Your task to perform on an android device: install app "Move to iOS" Image 0: 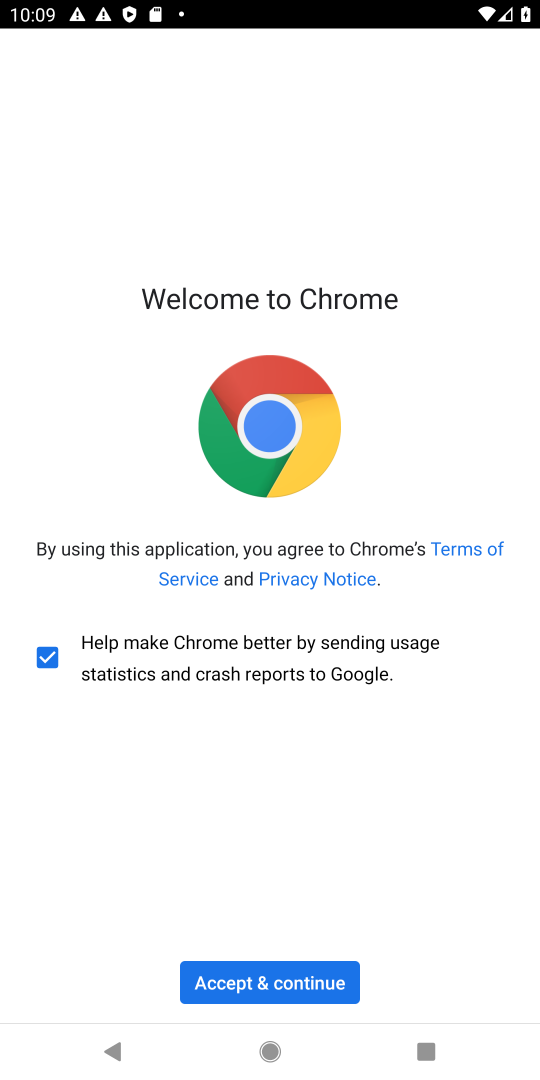
Step 0: click (255, 985)
Your task to perform on an android device: install app "Move to iOS" Image 1: 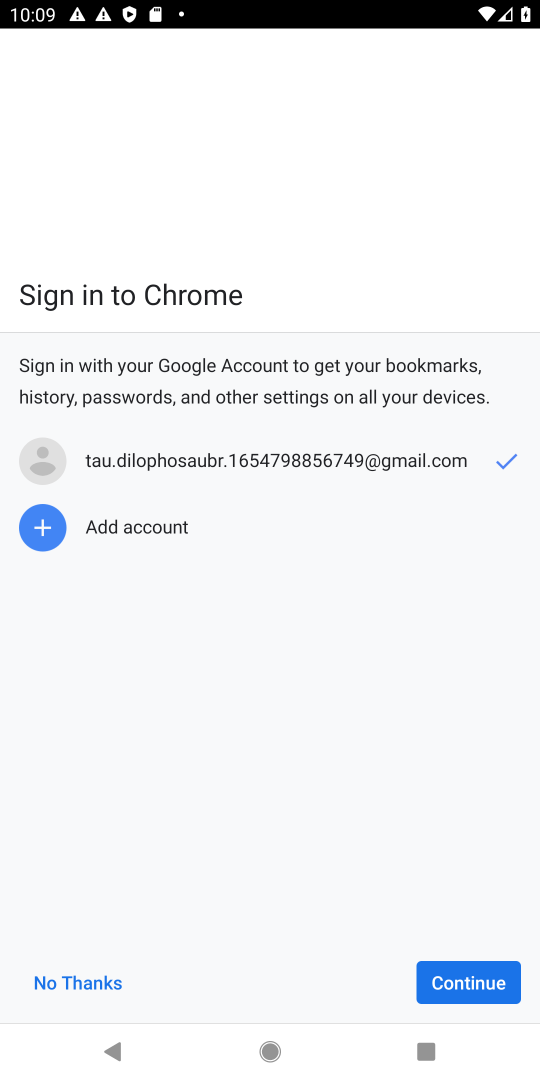
Step 1: click (81, 980)
Your task to perform on an android device: install app "Move to iOS" Image 2: 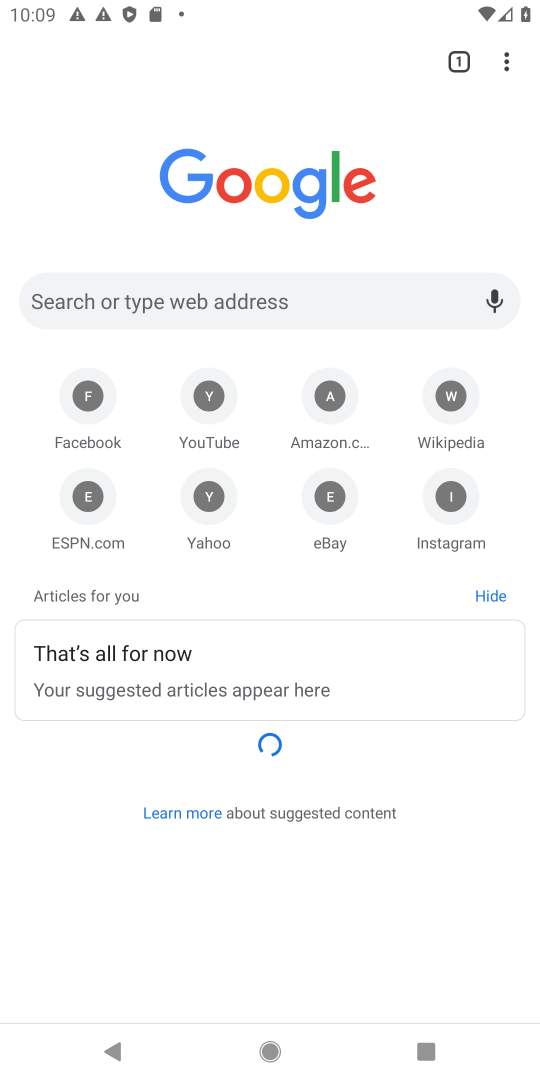
Step 2: press home button
Your task to perform on an android device: install app "Move to iOS" Image 3: 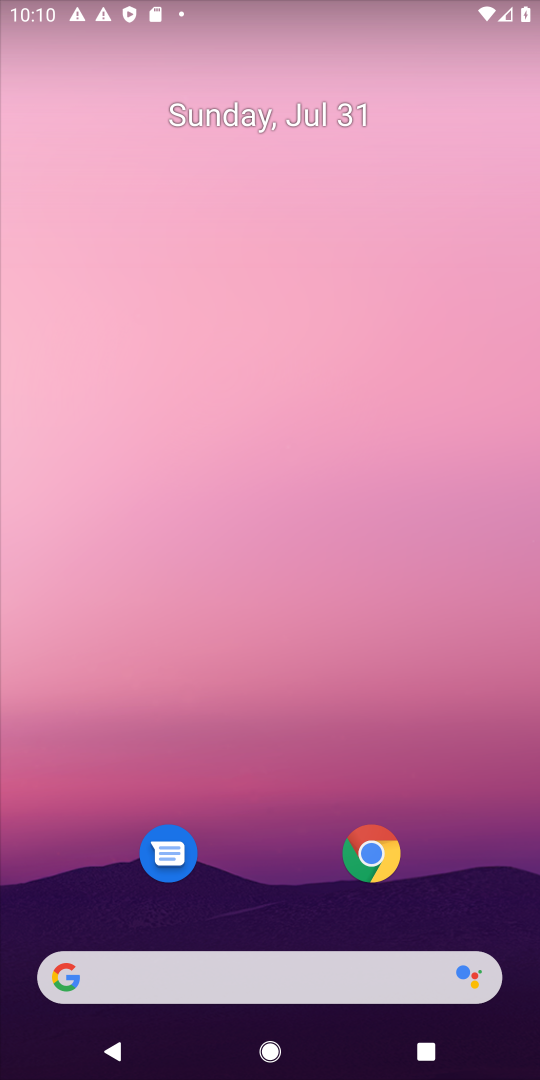
Step 3: drag from (299, 1028) to (251, 86)
Your task to perform on an android device: install app "Move to iOS" Image 4: 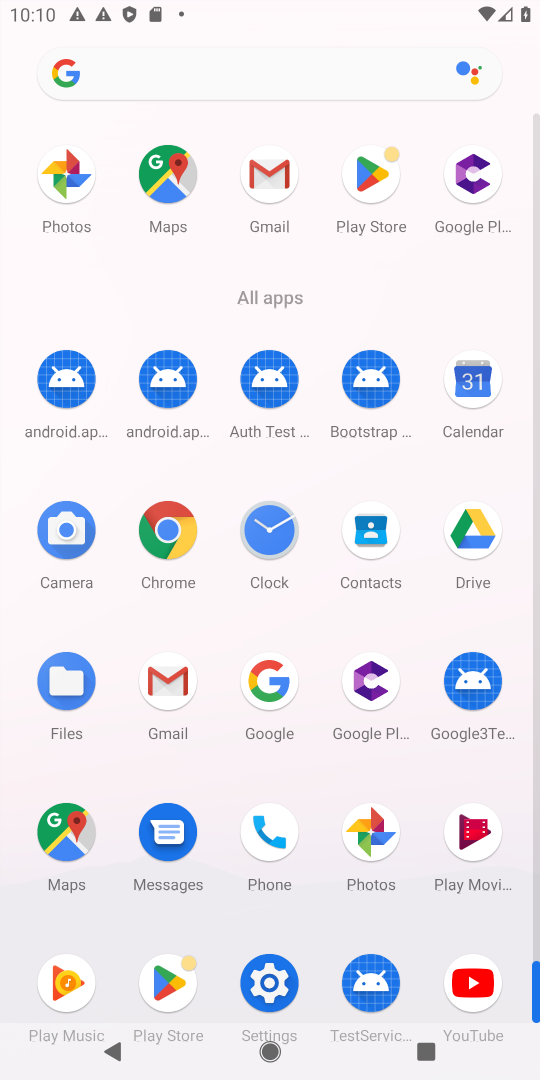
Step 4: click (167, 978)
Your task to perform on an android device: install app "Move to iOS" Image 5: 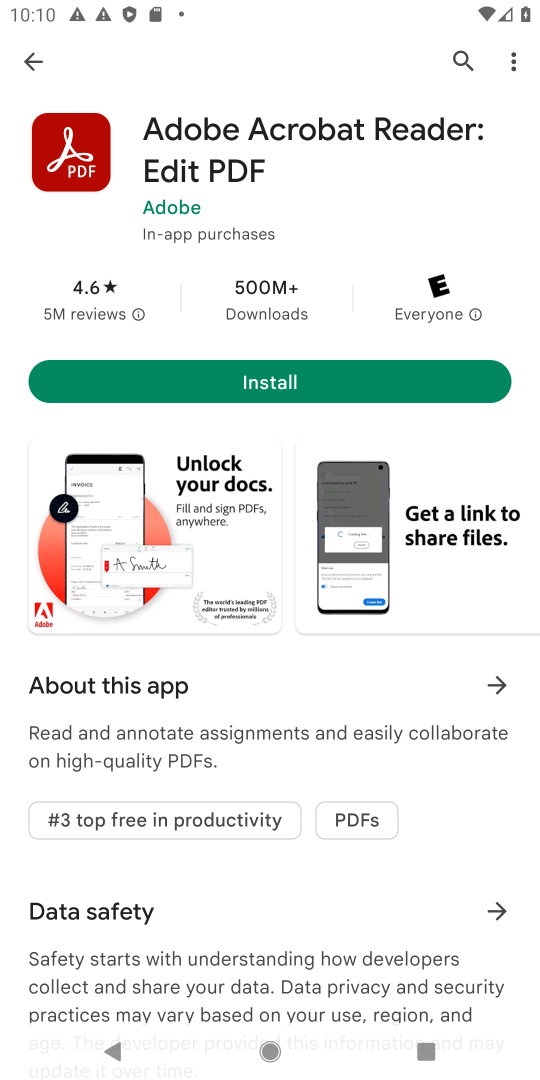
Step 5: click (459, 48)
Your task to perform on an android device: install app "Move to iOS" Image 6: 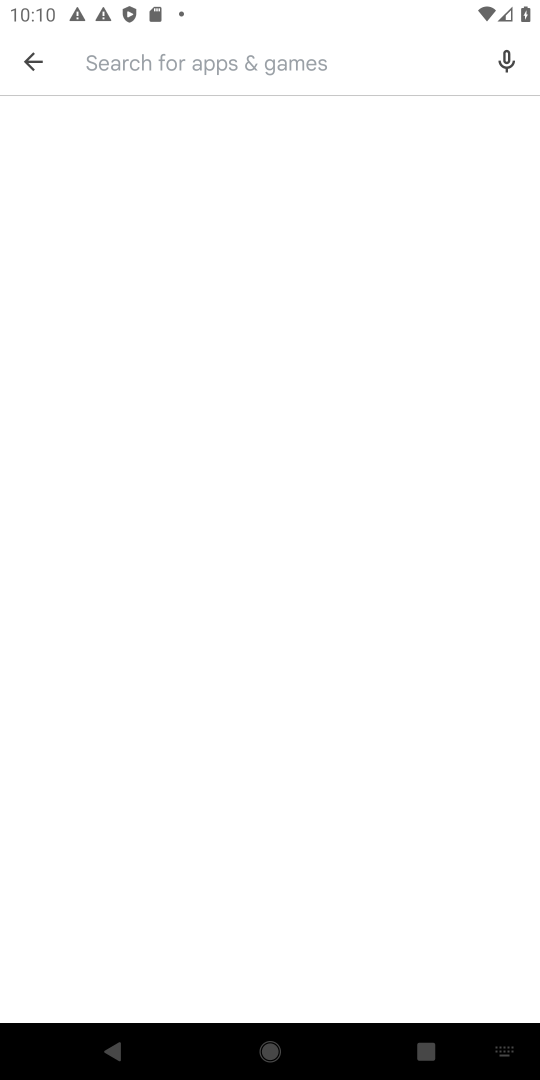
Step 6: type "Move to iOS"
Your task to perform on an android device: install app "Move to iOS" Image 7: 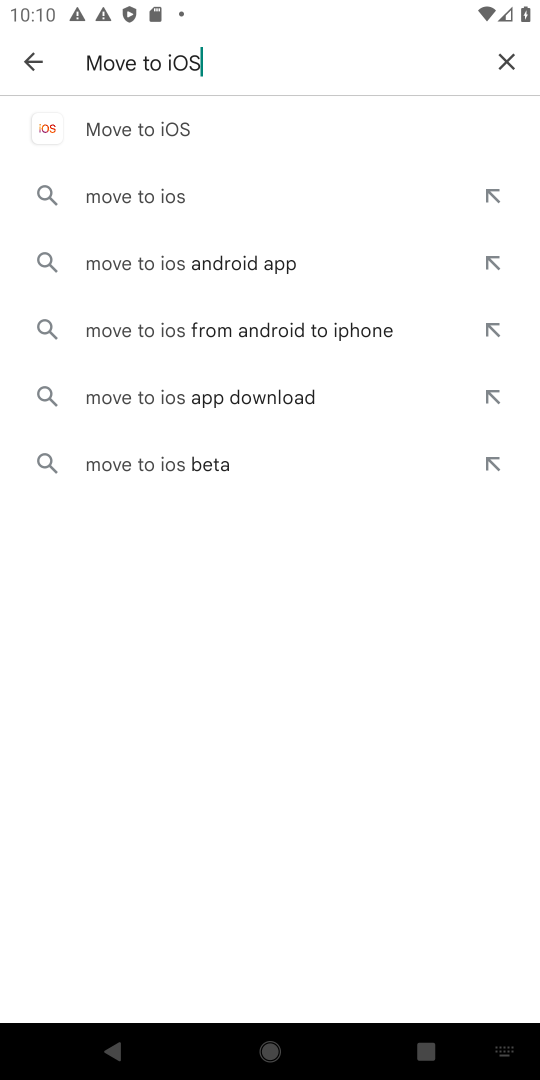
Step 7: click (128, 122)
Your task to perform on an android device: install app "Move to iOS" Image 8: 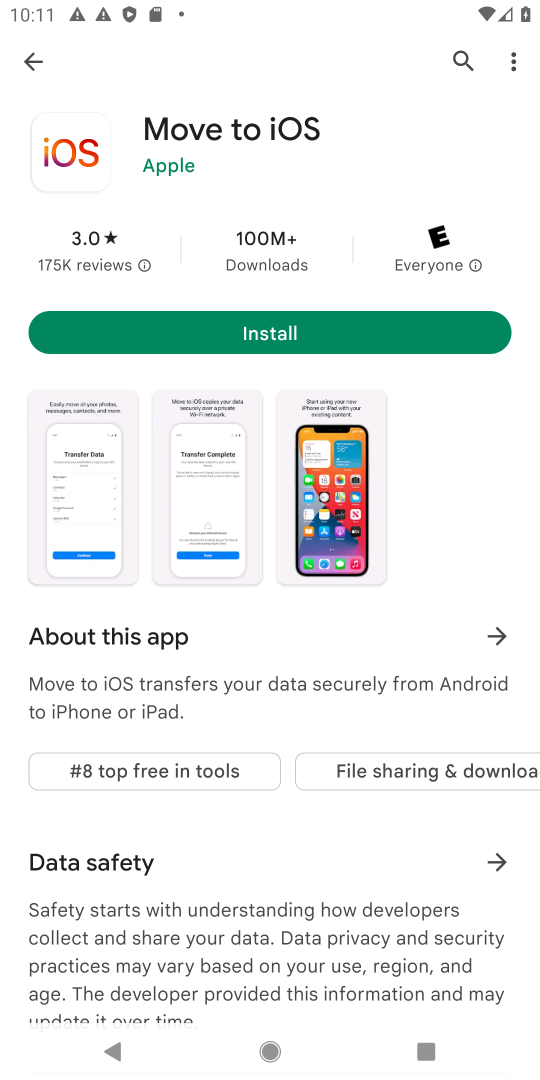
Step 8: click (276, 333)
Your task to perform on an android device: install app "Move to iOS" Image 9: 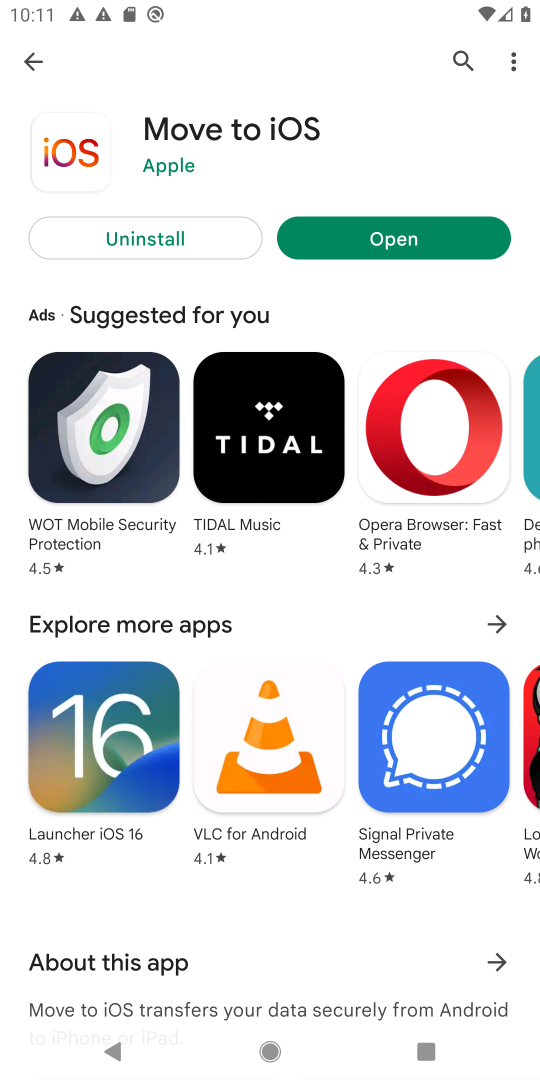
Step 9: task complete